Your task to perform on an android device: toggle javascript in the chrome app Image 0: 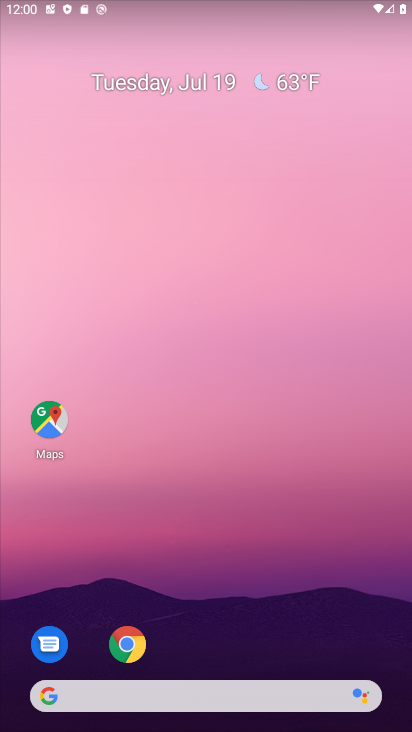
Step 0: click (135, 646)
Your task to perform on an android device: toggle javascript in the chrome app Image 1: 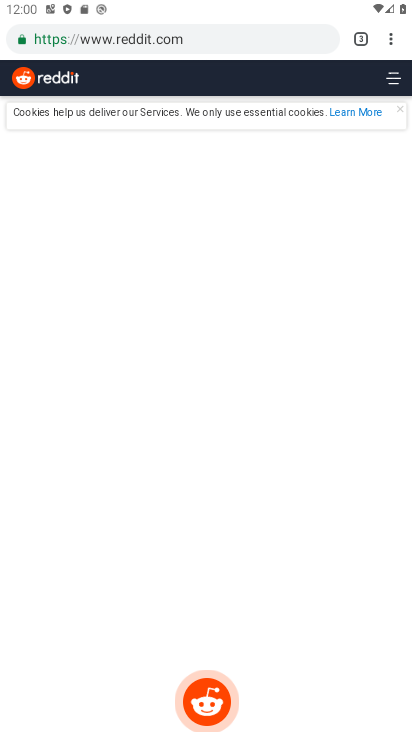
Step 1: click (391, 37)
Your task to perform on an android device: toggle javascript in the chrome app Image 2: 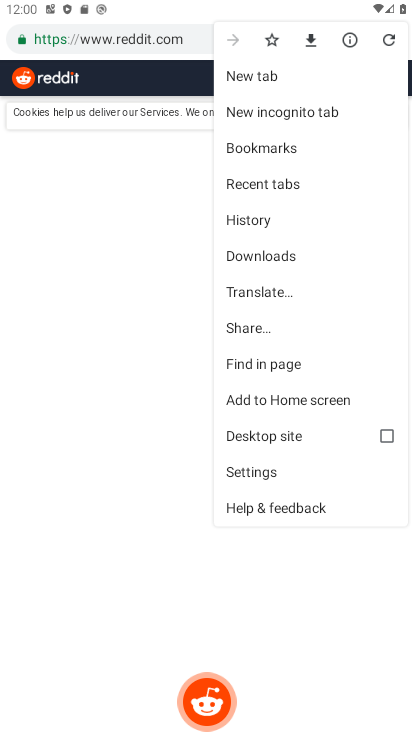
Step 2: click (250, 473)
Your task to perform on an android device: toggle javascript in the chrome app Image 3: 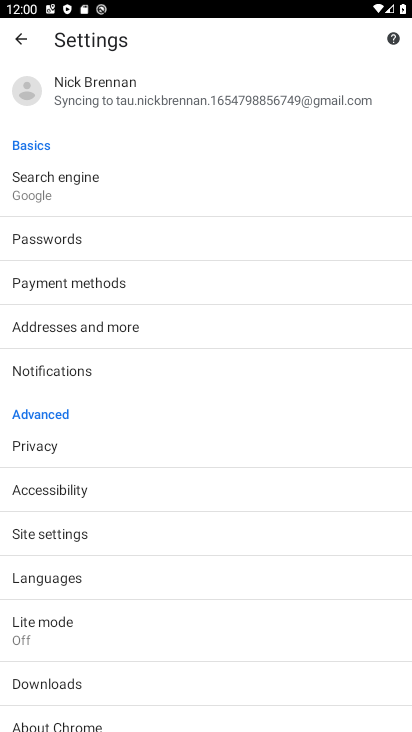
Step 3: click (57, 526)
Your task to perform on an android device: toggle javascript in the chrome app Image 4: 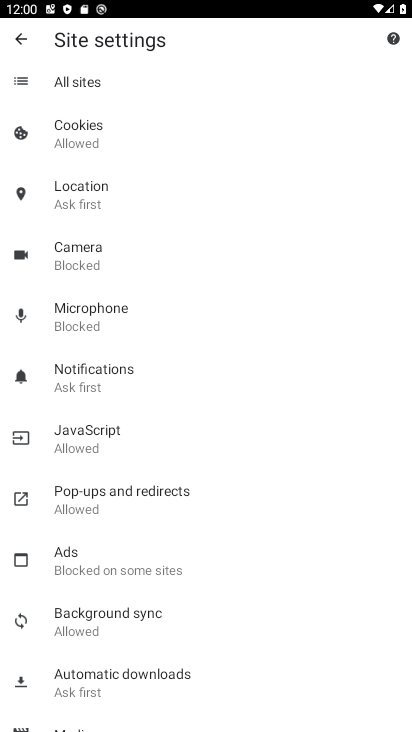
Step 4: click (87, 432)
Your task to perform on an android device: toggle javascript in the chrome app Image 5: 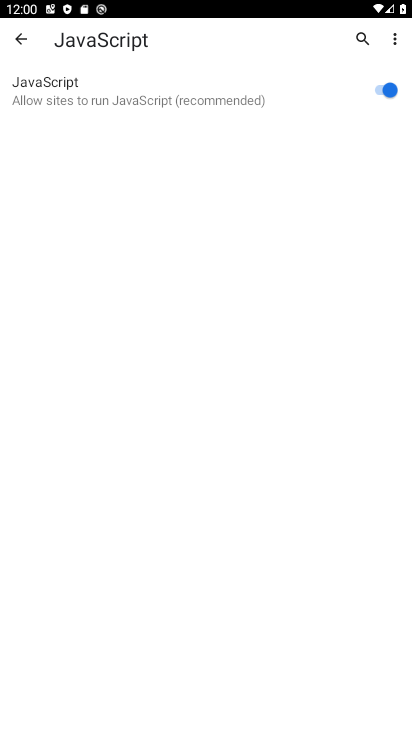
Step 5: click (381, 87)
Your task to perform on an android device: toggle javascript in the chrome app Image 6: 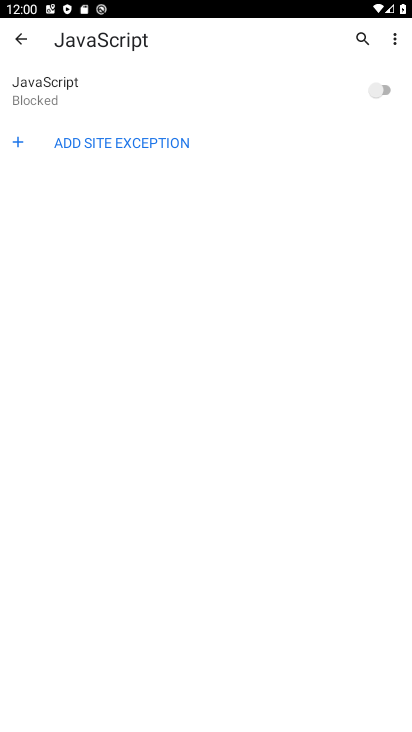
Step 6: task complete